Your task to perform on an android device: set the timer Image 0: 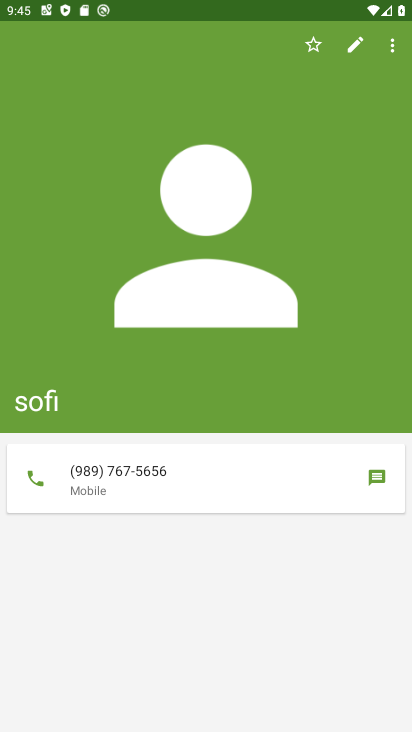
Step 0: press home button
Your task to perform on an android device: set the timer Image 1: 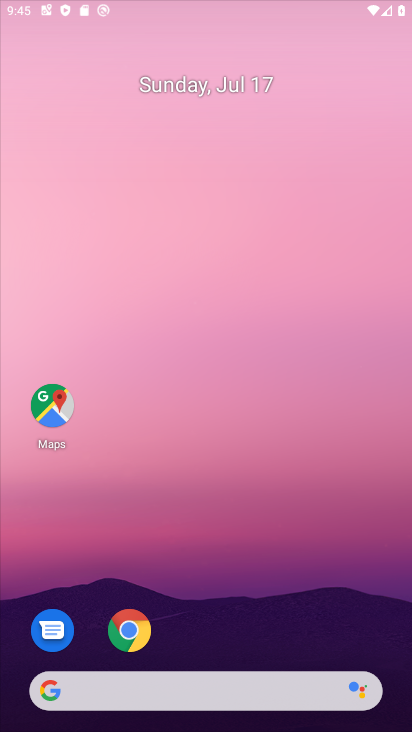
Step 1: drag from (204, 672) to (271, 17)
Your task to perform on an android device: set the timer Image 2: 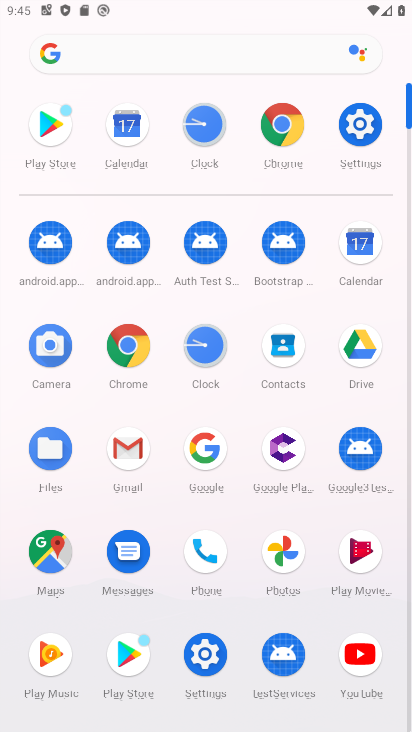
Step 2: click (190, 349)
Your task to perform on an android device: set the timer Image 3: 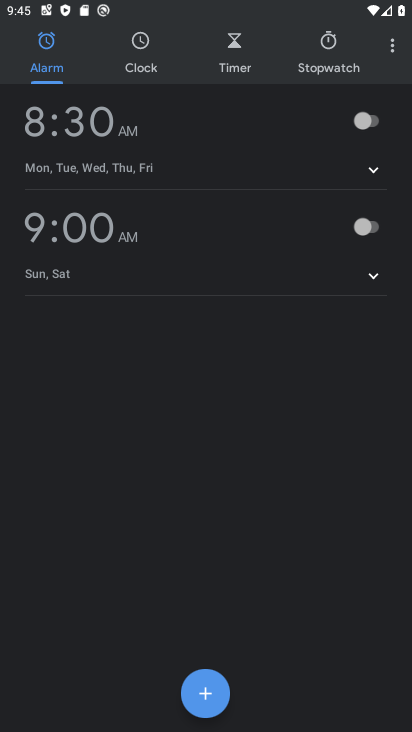
Step 3: click (232, 63)
Your task to perform on an android device: set the timer Image 4: 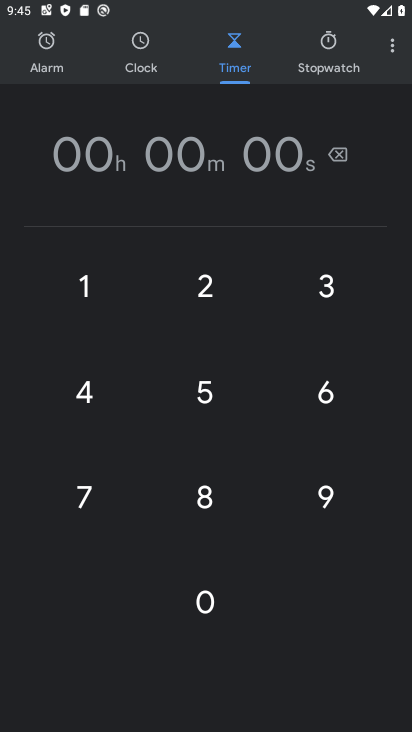
Step 4: click (198, 510)
Your task to perform on an android device: set the timer Image 5: 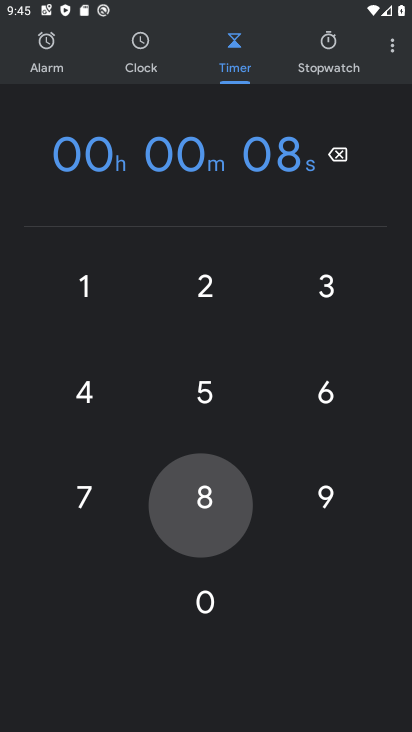
Step 5: click (364, 504)
Your task to perform on an android device: set the timer Image 6: 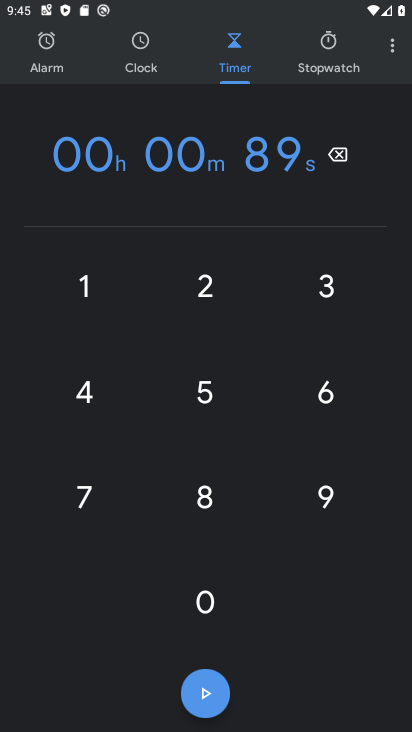
Step 6: click (334, 493)
Your task to perform on an android device: set the timer Image 7: 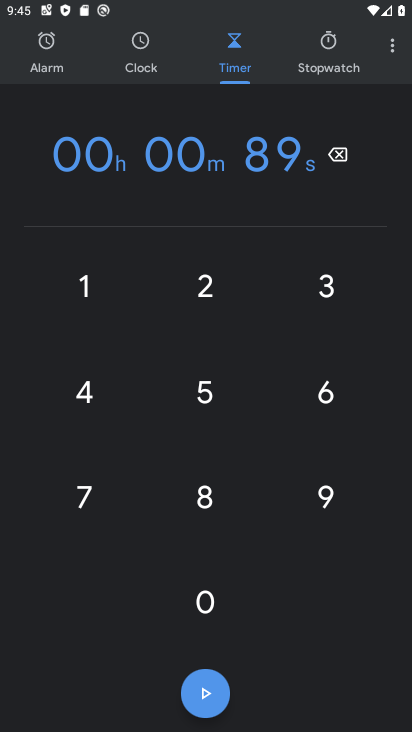
Step 7: click (334, 493)
Your task to perform on an android device: set the timer Image 8: 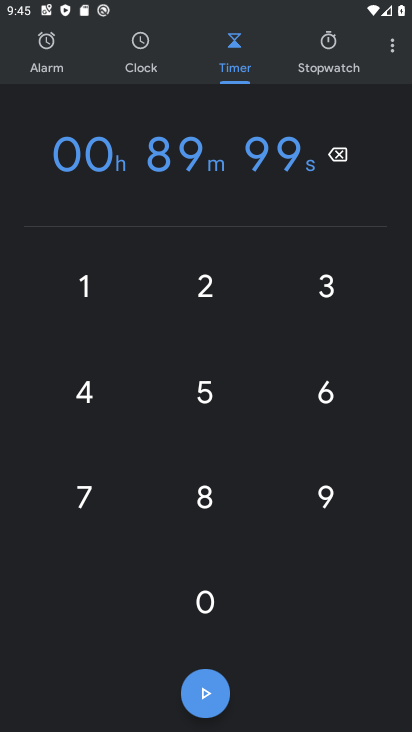
Step 8: click (334, 493)
Your task to perform on an android device: set the timer Image 9: 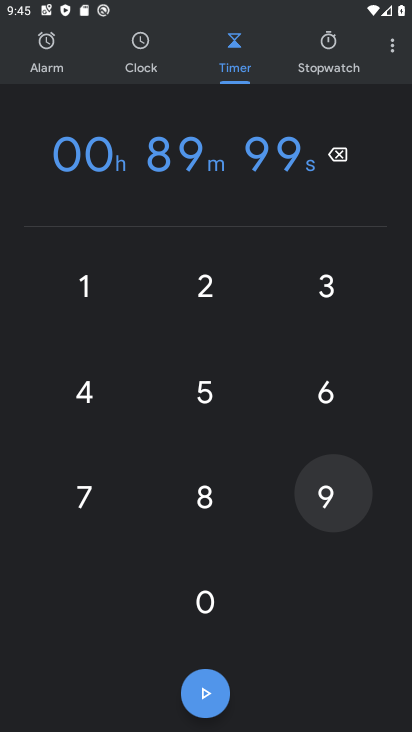
Step 9: click (334, 493)
Your task to perform on an android device: set the timer Image 10: 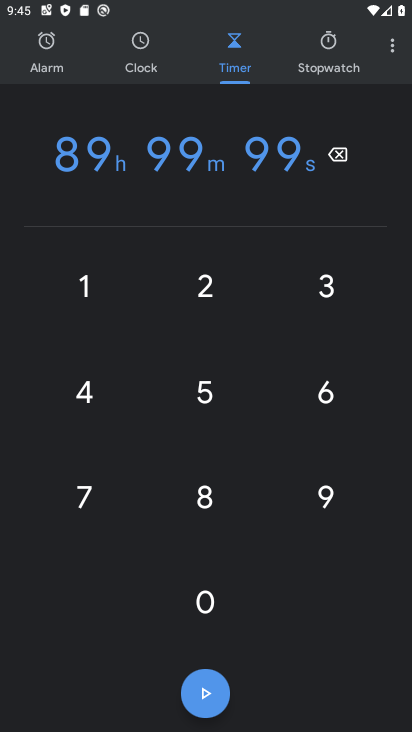
Step 10: click (193, 699)
Your task to perform on an android device: set the timer Image 11: 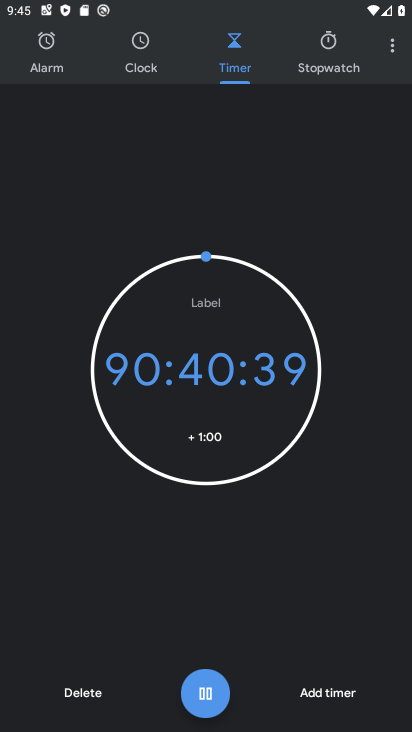
Step 11: task complete